Your task to perform on an android device: manage bookmarks in the chrome app Image 0: 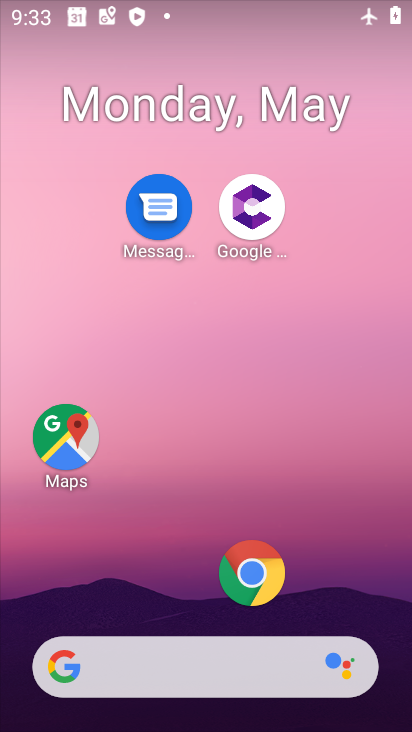
Step 0: click (267, 578)
Your task to perform on an android device: manage bookmarks in the chrome app Image 1: 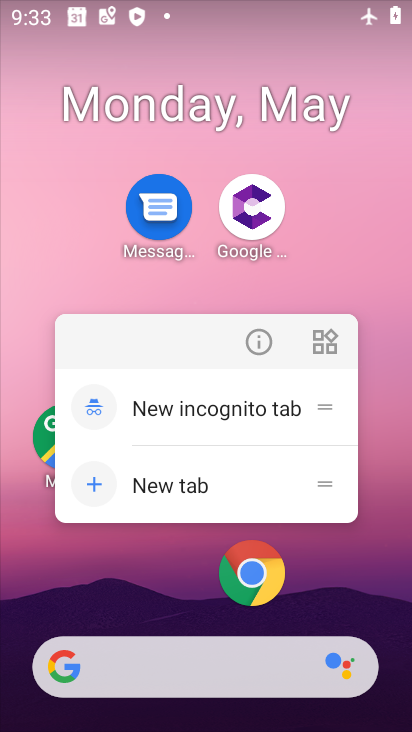
Step 1: click (254, 576)
Your task to perform on an android device: manage bookmarks in the chrome app Image 2: 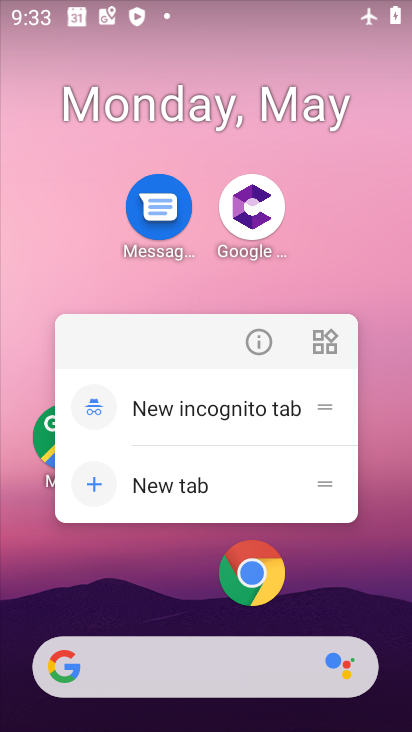
Step 2: click (236, 595)
Your task to perform on an android device: manage bookmarks in the chrome app Image 3: 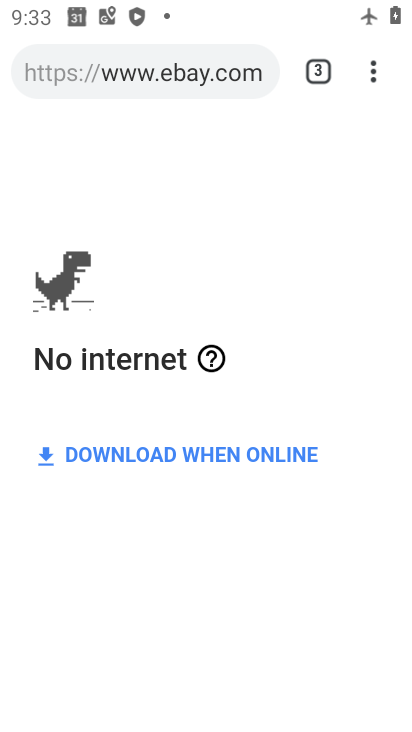
Step 3: click (373, 82)
Your task to perform on an android device: manage bookmarks in the chrome app Image 4: 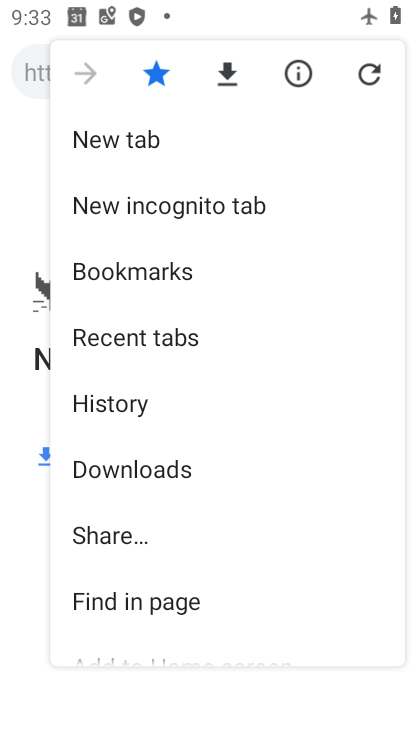
Step 4: click (173, 279)
Your task to perform on an android device: manage bookmarks in the chrome app Image 5: 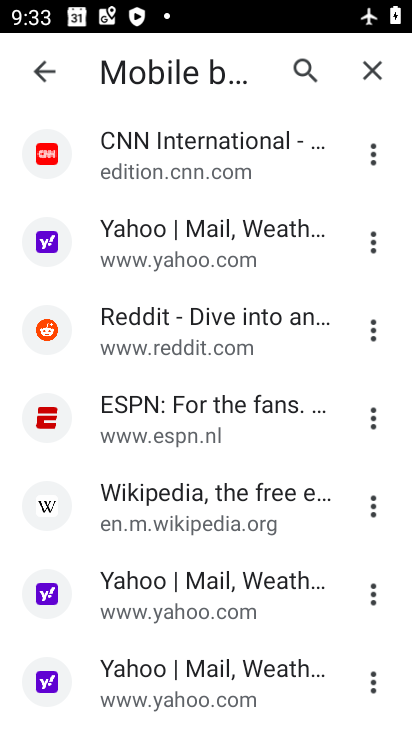
Step 5: task complete